Your task to perform on an android device: change the clock style Image 0: 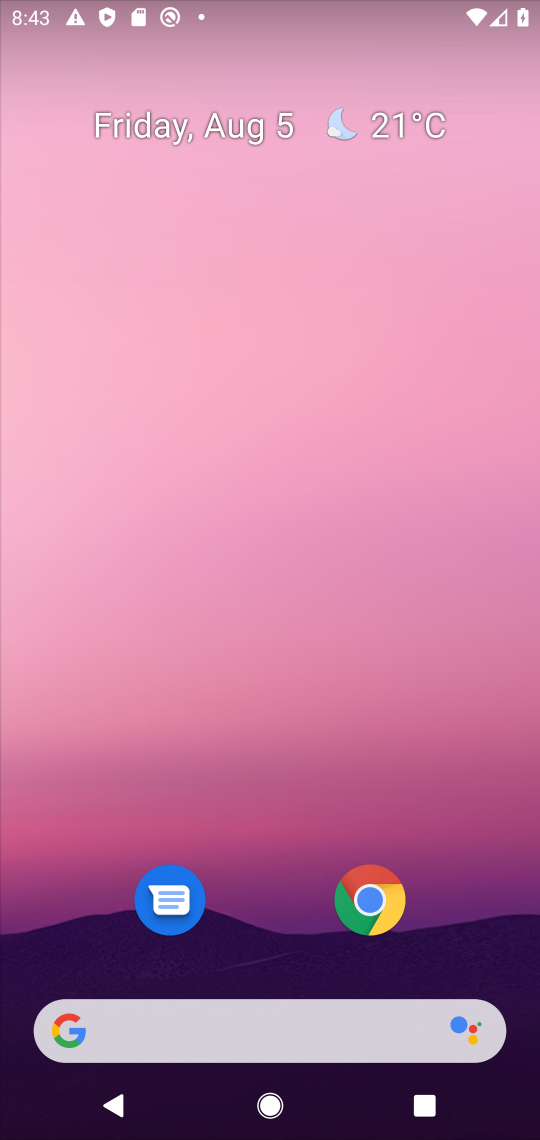
Step 0: press home button
Your task to perform on an android device: change the clock style Image 1: 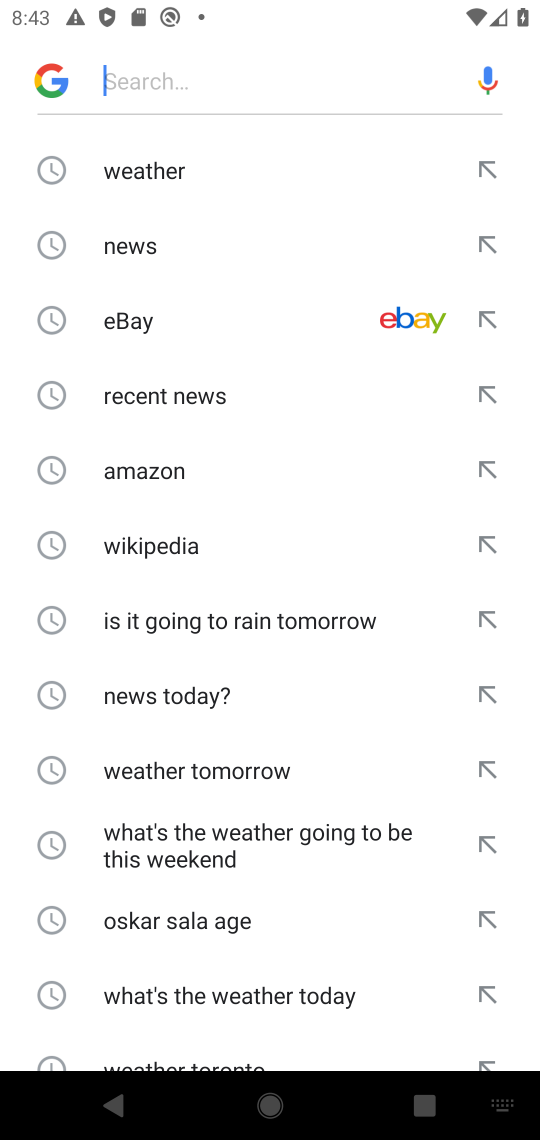
Step 1: click (340, 92)
Your task to perform on an android device: change the clock style Image 2: 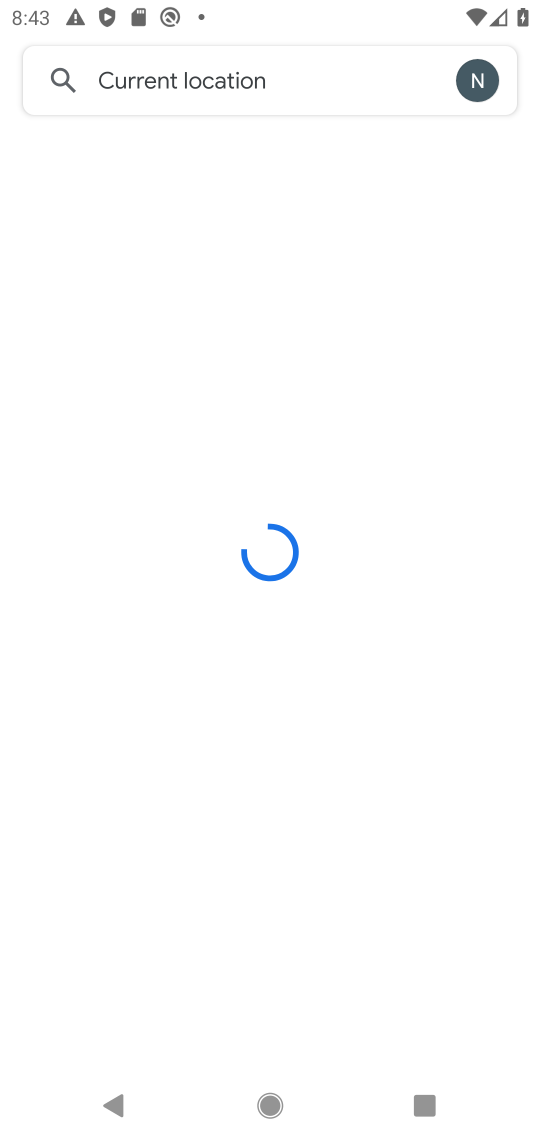
Step 2: press home button
Your task to perform on an android device: change the clock style Image 3: 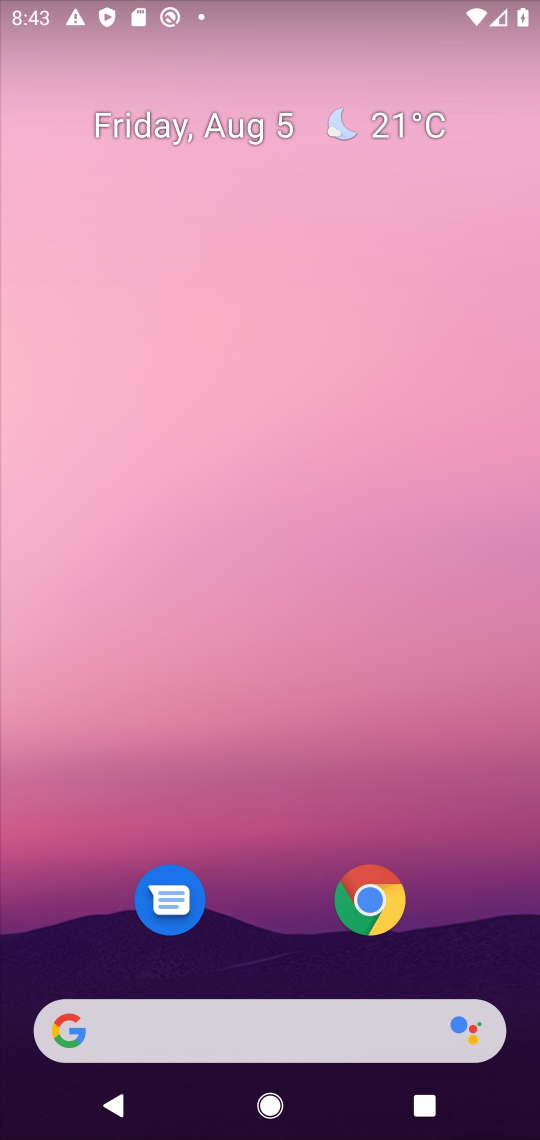
Step 3: drag from (531, 1113) to (454, 37)
Your task to perform on an android device: change the clock style Image 4: 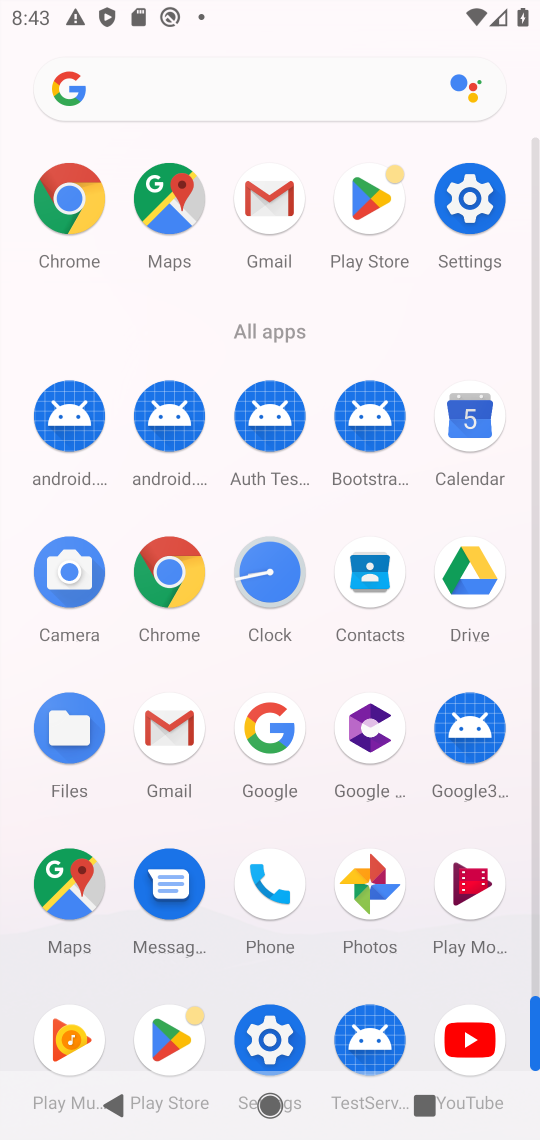
Step 4: click (292, 590)
Your task to perform on an android device: change the clock style Image 5: 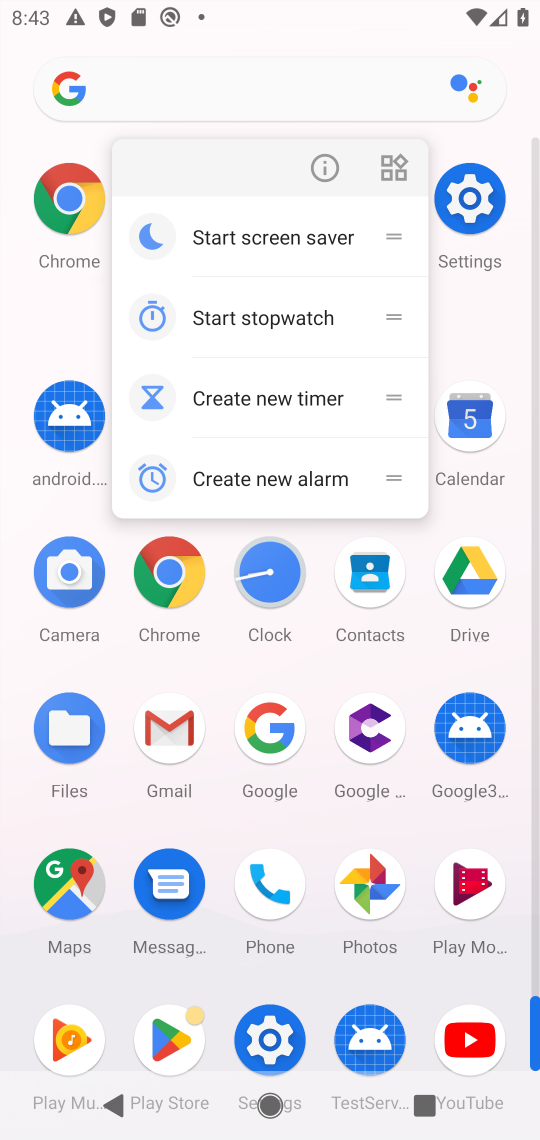
Step 5: click (292, 590)
Your task to perform on an android device: change the clock style Image 6: 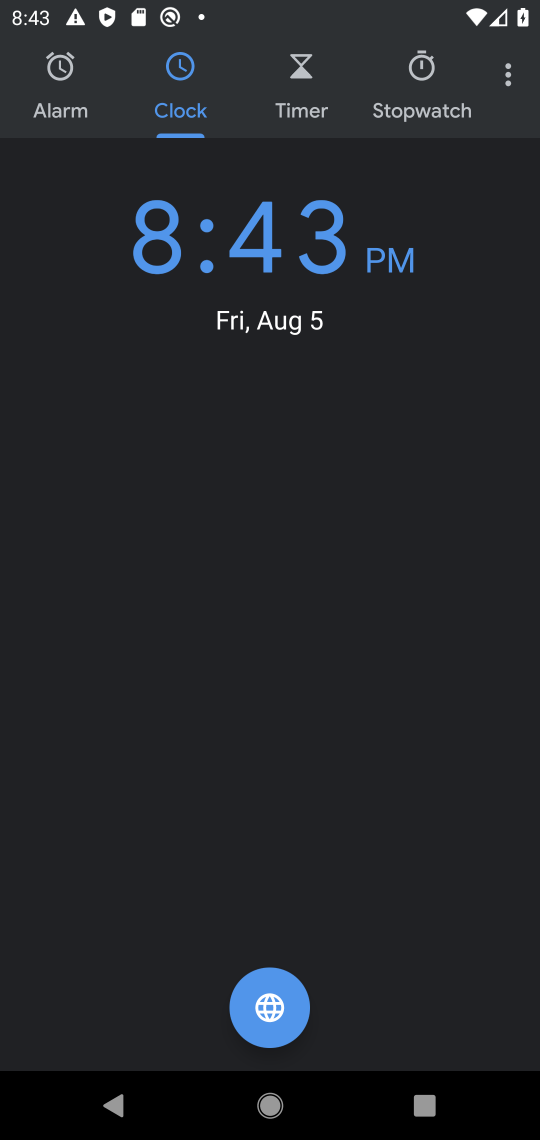
Step 6: click (509, 83)
Your task to perform on an android device: change the clock style Image 7: 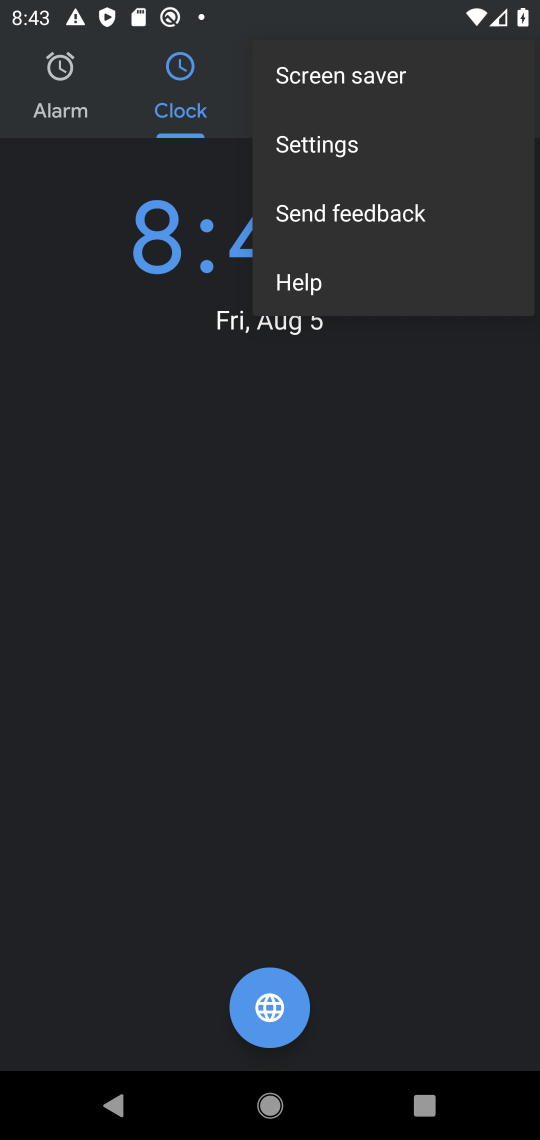
Step 7: click (310, 149)
Your task to perform on an android device: change the clock style Image 8: 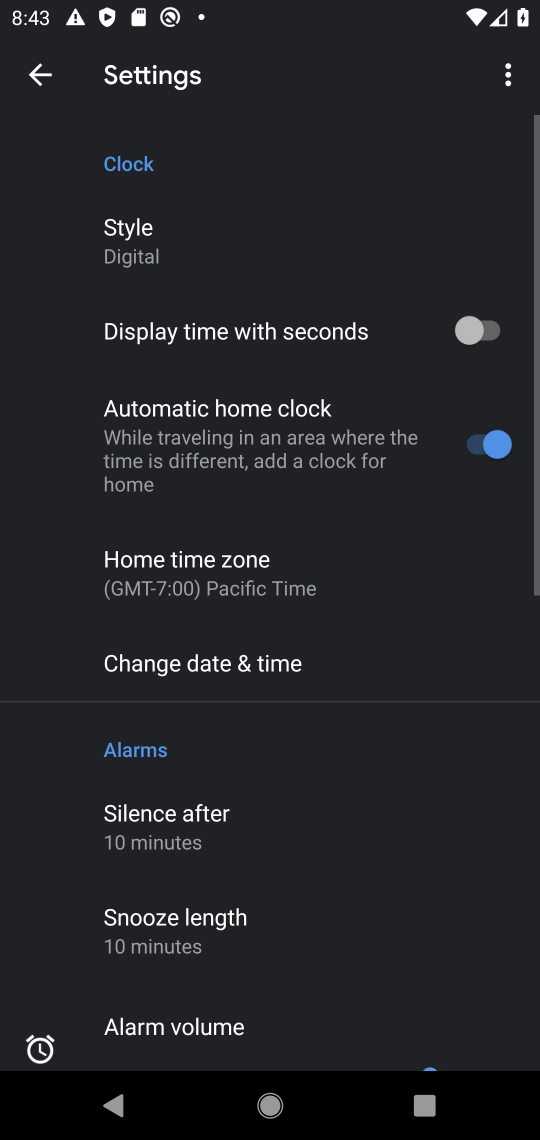
Step 8: click (157, 249)
Your task to perform on an android device: change the clock style Image 9: 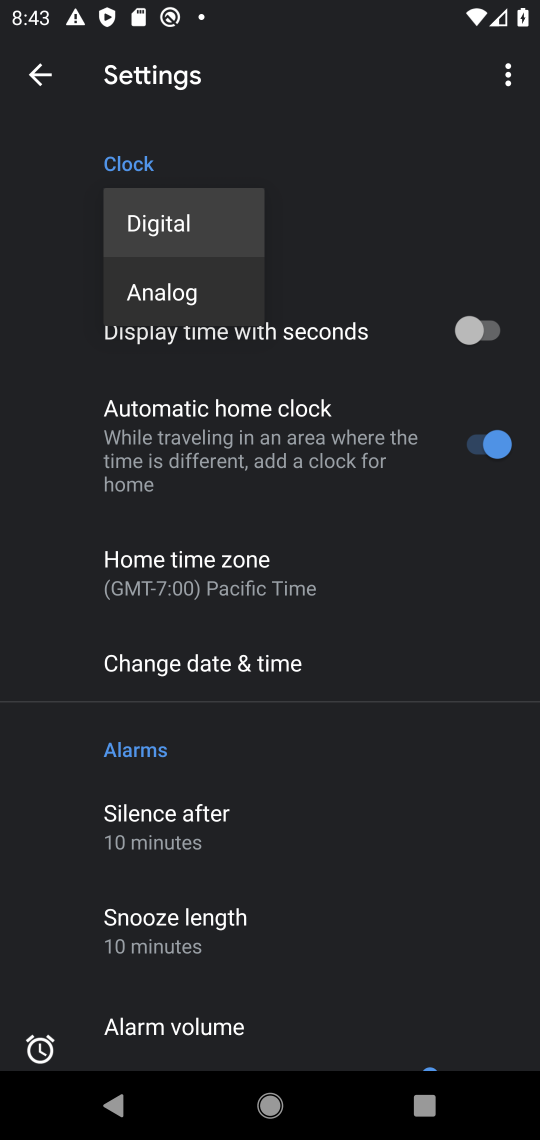
Step 9: click (157, 290)
Your task to perform on an android device: change the clock style Image 10: 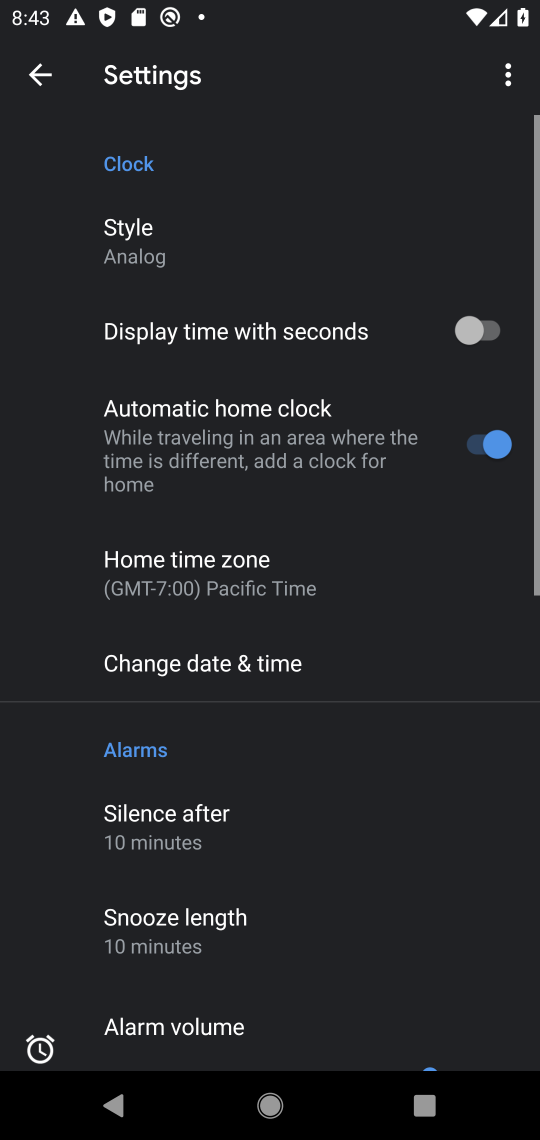
Step 10: task complete